Your task to perform on an android device: What's the weather going to be this weekend? Image 0: 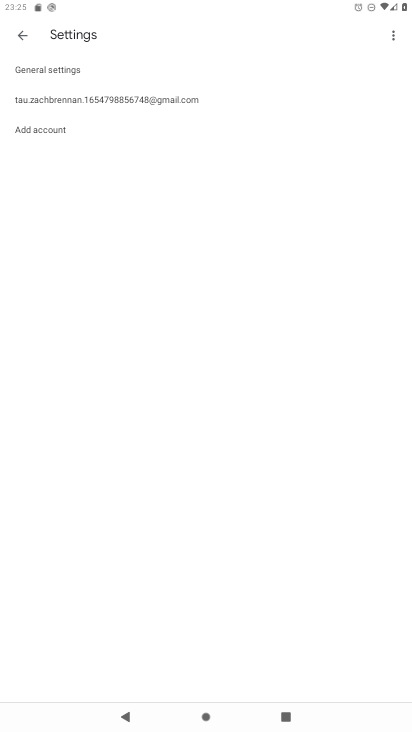
Step 0: drag from (221, 591) to (289, 82)
Your task to perform on an android device: What's the weather going to be this weekend? Image 1: 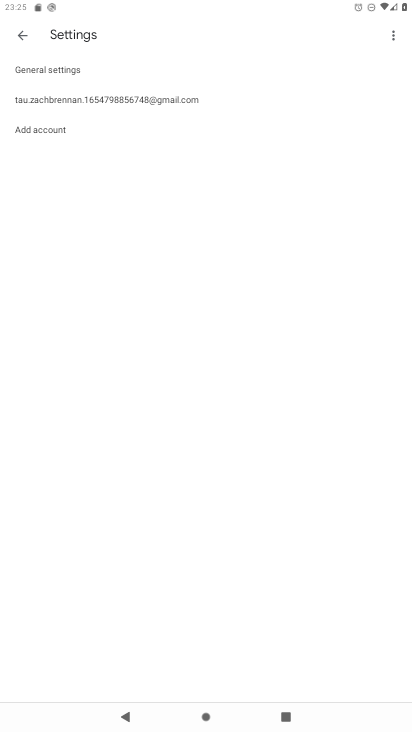
Step 1: press home button
Your task to perform on an android device: What's the weather going to be this weekend? Image 2: 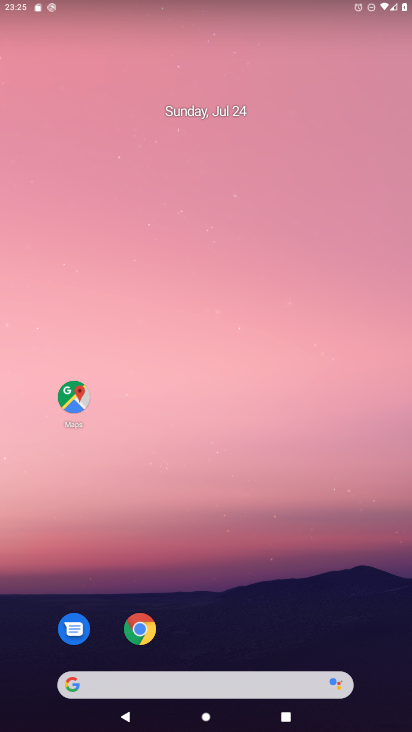
Step 2: drag from (189, 635) to (270, 37)
Your task to perform on an android device: What's the weather going to be this weekend? Image 3: 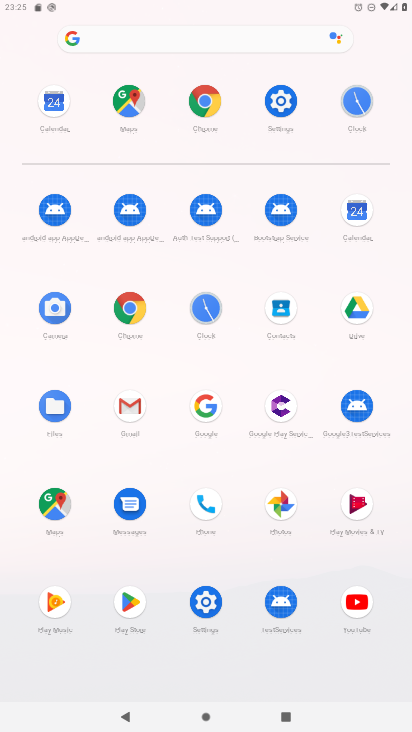
Step 3: click (183, 26)
Your task to perform on an android device: What's the weather going to be this weekend? Image 4: 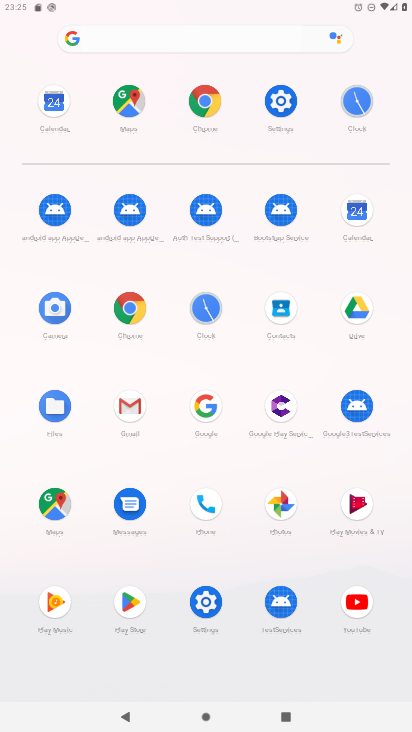
Step 4: click (171, 26)
Your task to perform on an android device: What's the weather going to be this weekend? Image 5: 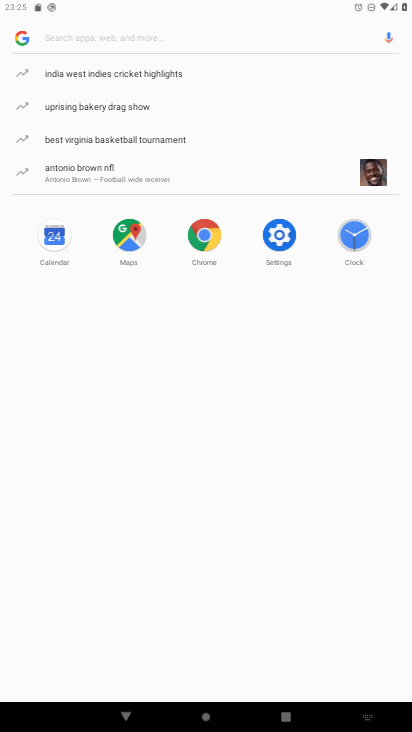
Step 5: click (81, 36)
Your task to perform on an android device: What's the weather going to be this weekend? Image 6: 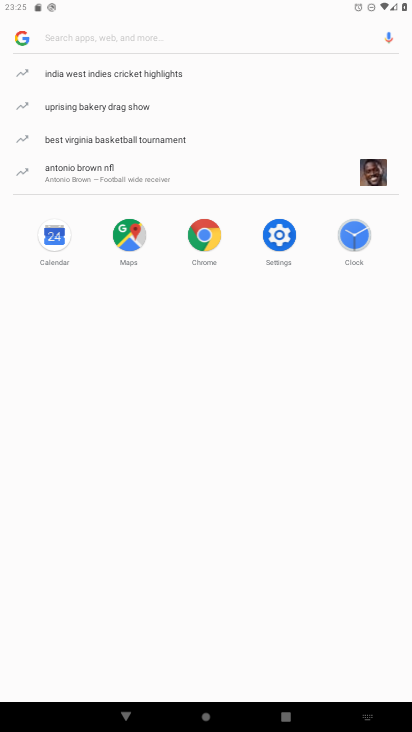
Step 6: type "What's the weather going to be this weekend?"
Your task to perform on an android device: What's the weather going to be this weekend? Image 7: 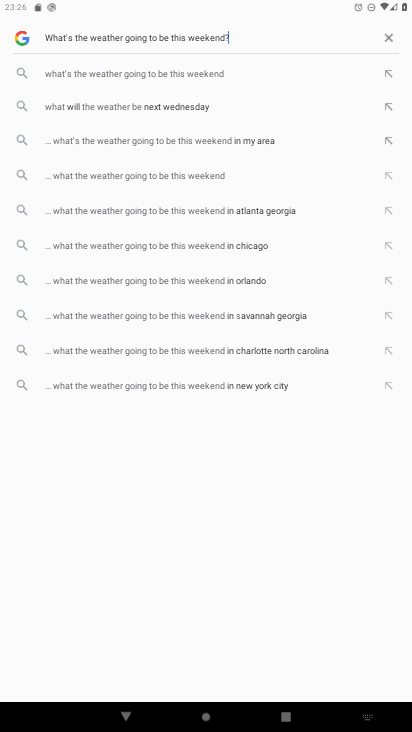
Step 7: click (114, 40)
Your task to perform on an android device: What's the weather going to be this weekend? Image 8: 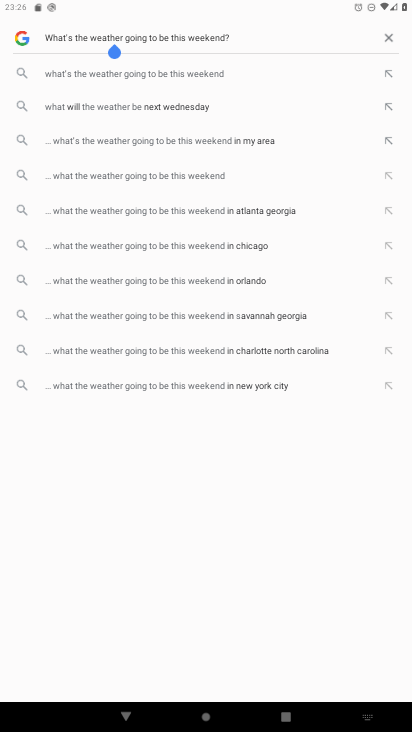
Step 8: click (118, 72)
Your task to perform on an android device: What's the weather going to be this weekend? Image 9: 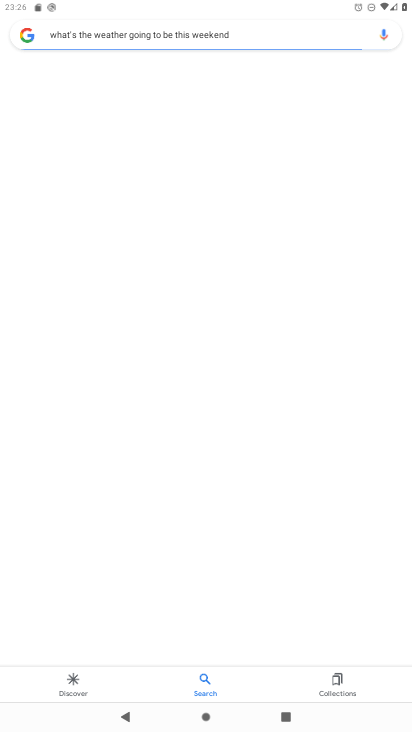
Step 9: task complete